Your task to perform on an android device: Open the Play Movies app and select the watchlist tab. Image 0: 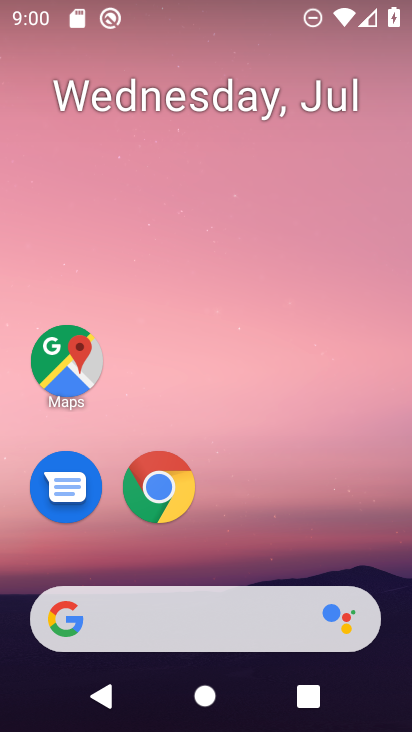
Step 0: drag from (330, 463) to (361, 49)
Your task to perform on an android device: Open the Play Movies app and select the watchlist tab. Image 1: 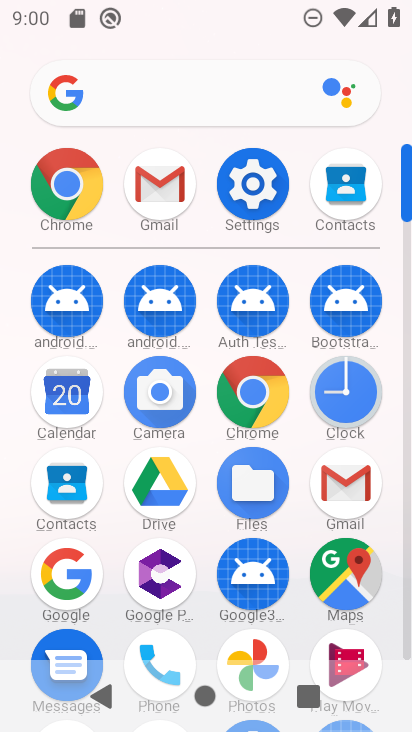
Step 1: drag from (401, 570) to (407, 282)
Your task to perform on an android device: Open the Play Movies app and select the watchlist tab. Image 2: 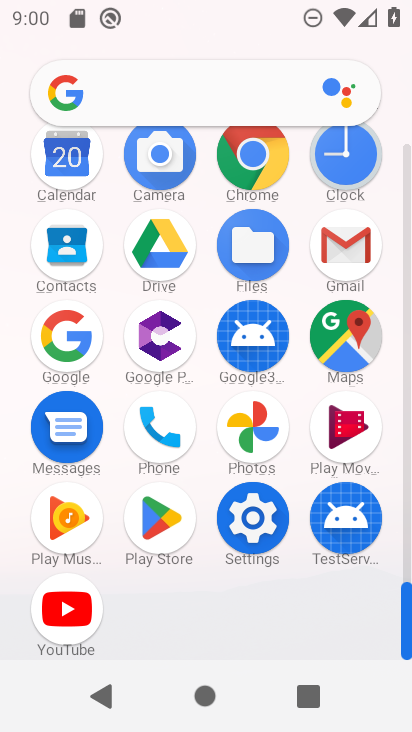
Step 2: click (347, 418)
Your task to perform on an android device: Open the Play Movies app and select the watchlist tab. Image 3: 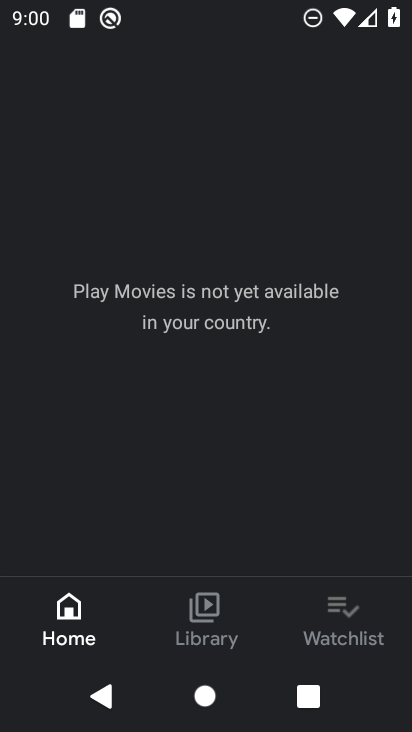
Step 3: click (361, 607)
Your task to perform on an android device: Open the Play Movies app and select the watchlist tab. Image 4: 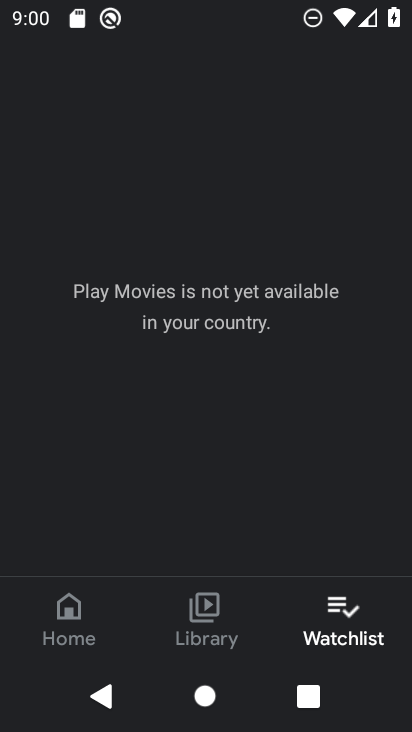
Step 4: task complete